Your task to perform on an android device: Open Yahoo.com Image 0: 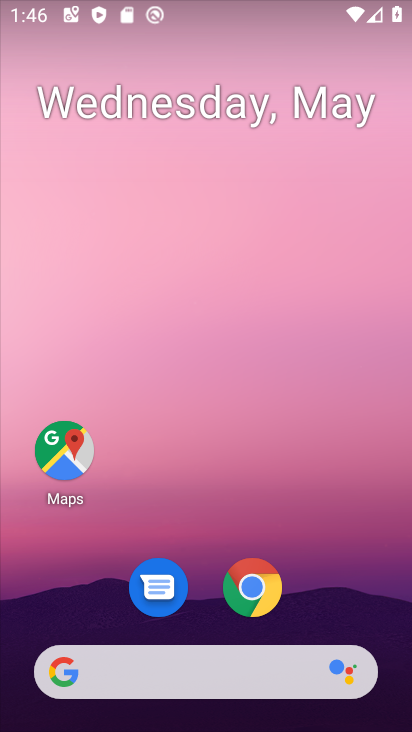
Step 0: click (267, 616)
Your task to perform on an android device: Open Yahoo.com Image 1: 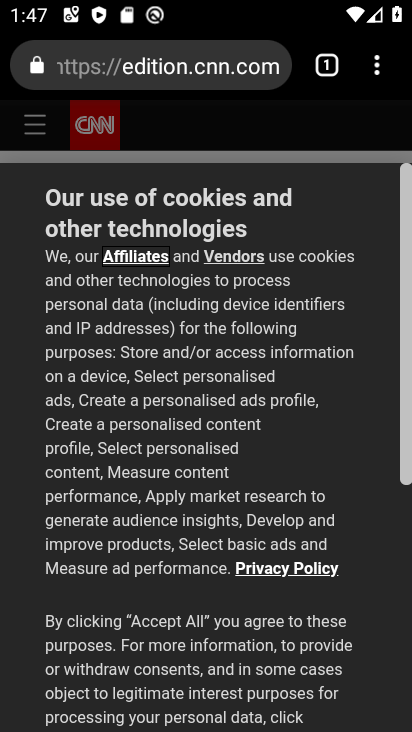
Step 1: click (321, 81)
Your task to perform on an android device: Open Yahoo.com Image 2: 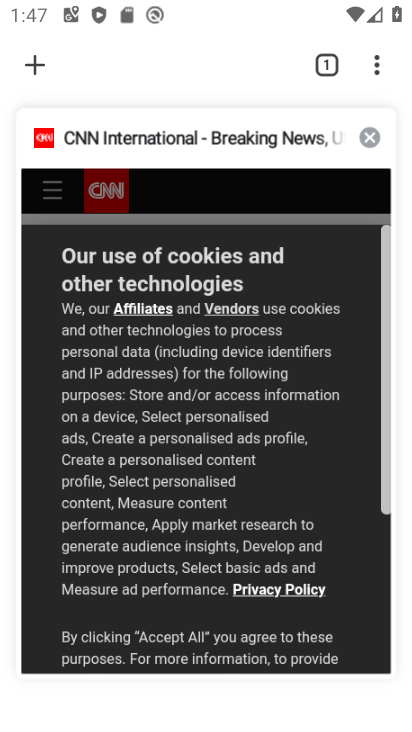
Step 2: click (360, 151)
Your task to perform on an android device: Open Yahoo.com Image 3: 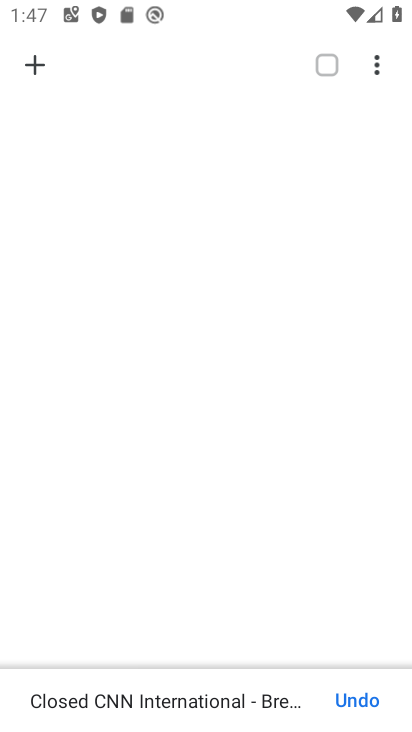
Step 3: click (23, 68)
Your task to perform on an android device: Open Yahoo.com Image 4: 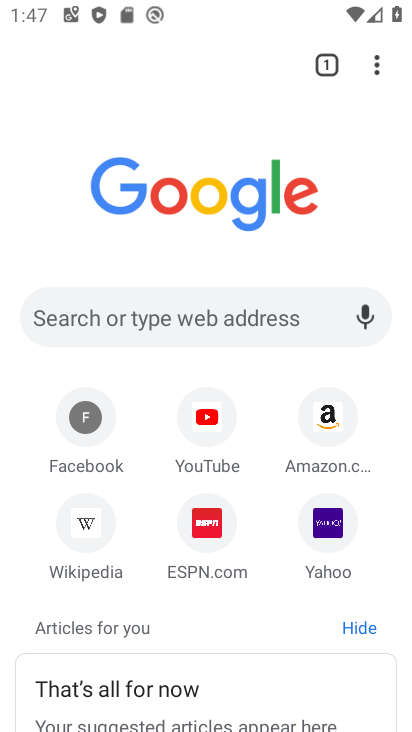
Step 4: click (316, 525)
Your task to perform on an android device: Open Yahoo.com Image 5: 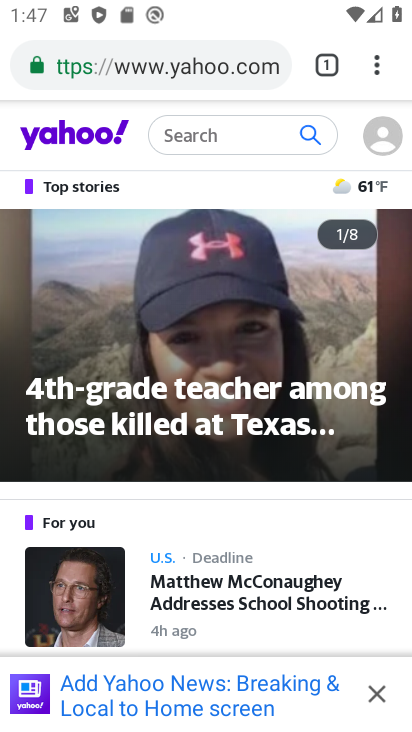
Step 5: task complete